Your task to perform on an android device: Empty the shopping cart on target.com. Add "jbl flip 4" to the cart on target.com Image 0: 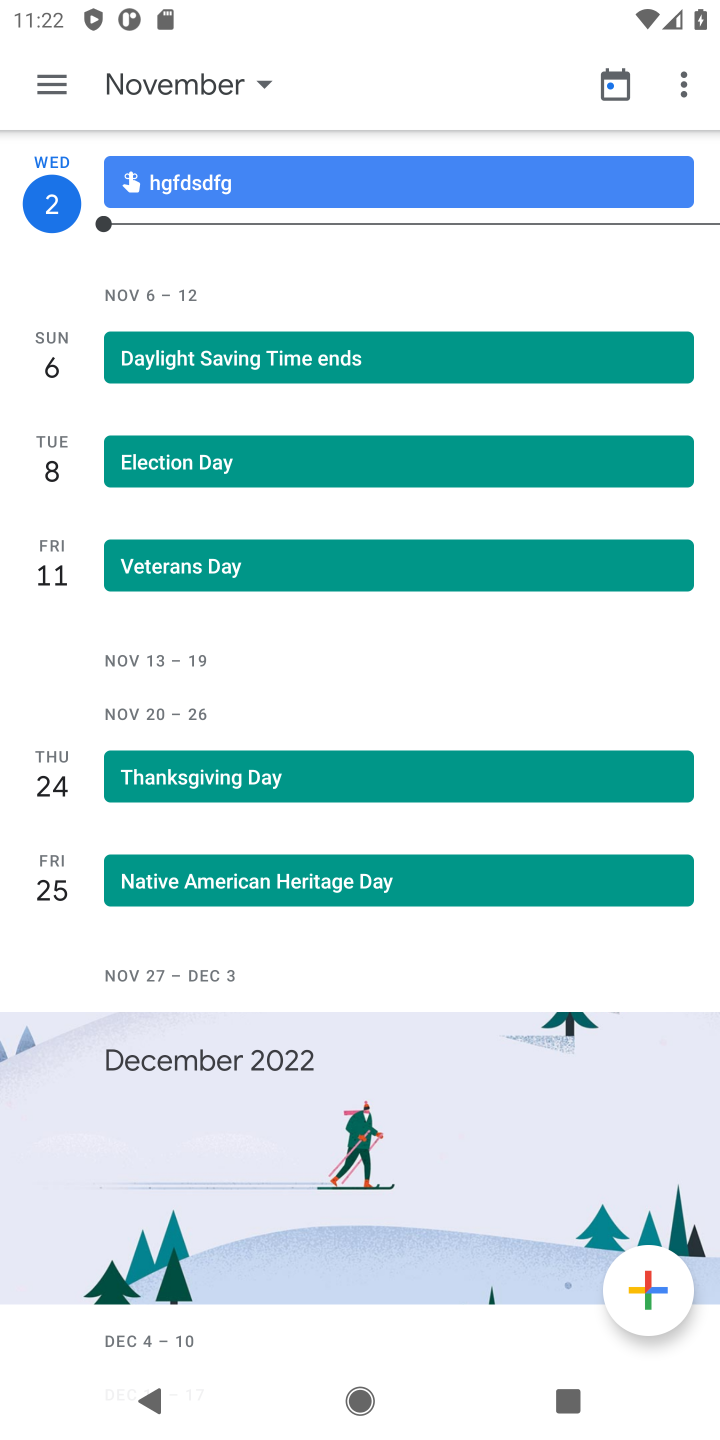
Step 0: press home button
Your task to perform on an android device: Empty the shopping cart on target.com. Add "jbl flip 4" to the cart on target.com Image 1: 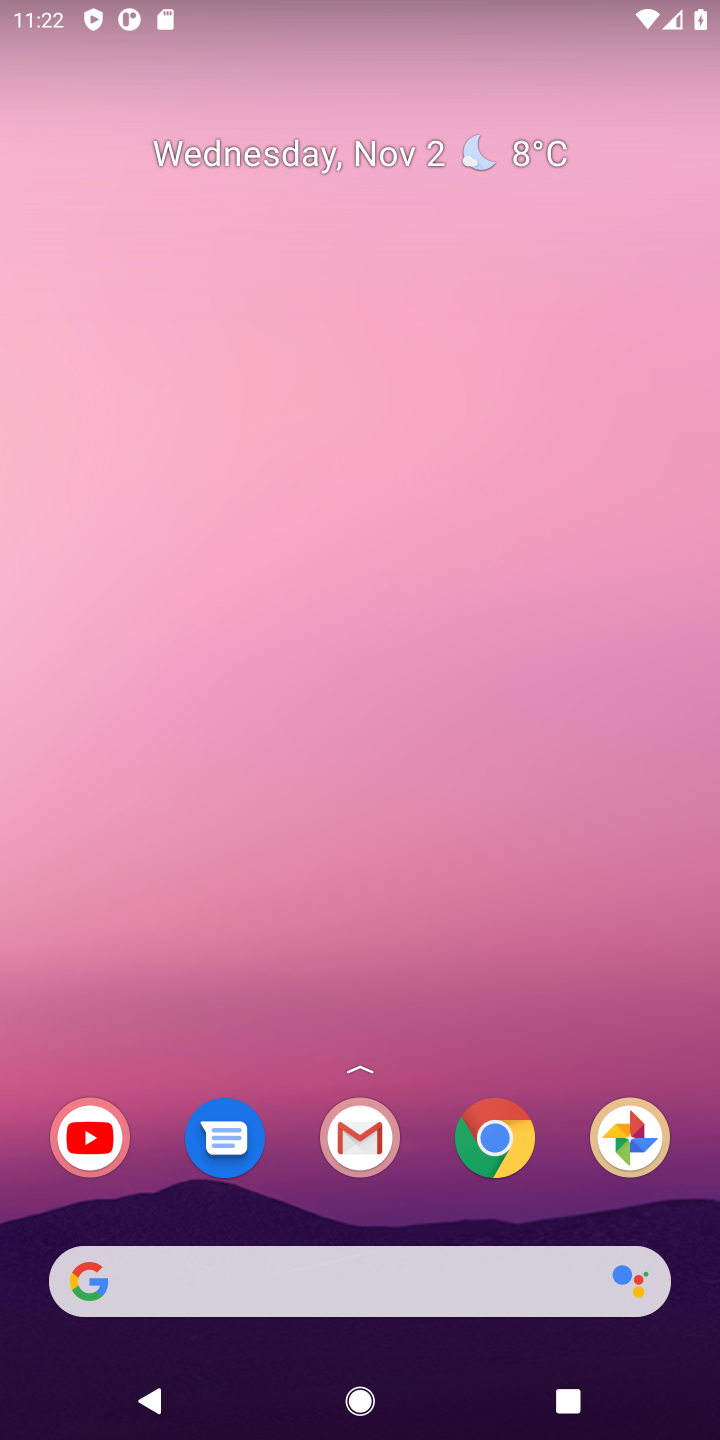
Step 1: click (505, 1130)
Your task to perform on an android device: Empty the shopping cart on target.com. Add "jbl flip 4" to the cart on target.com Image 2: 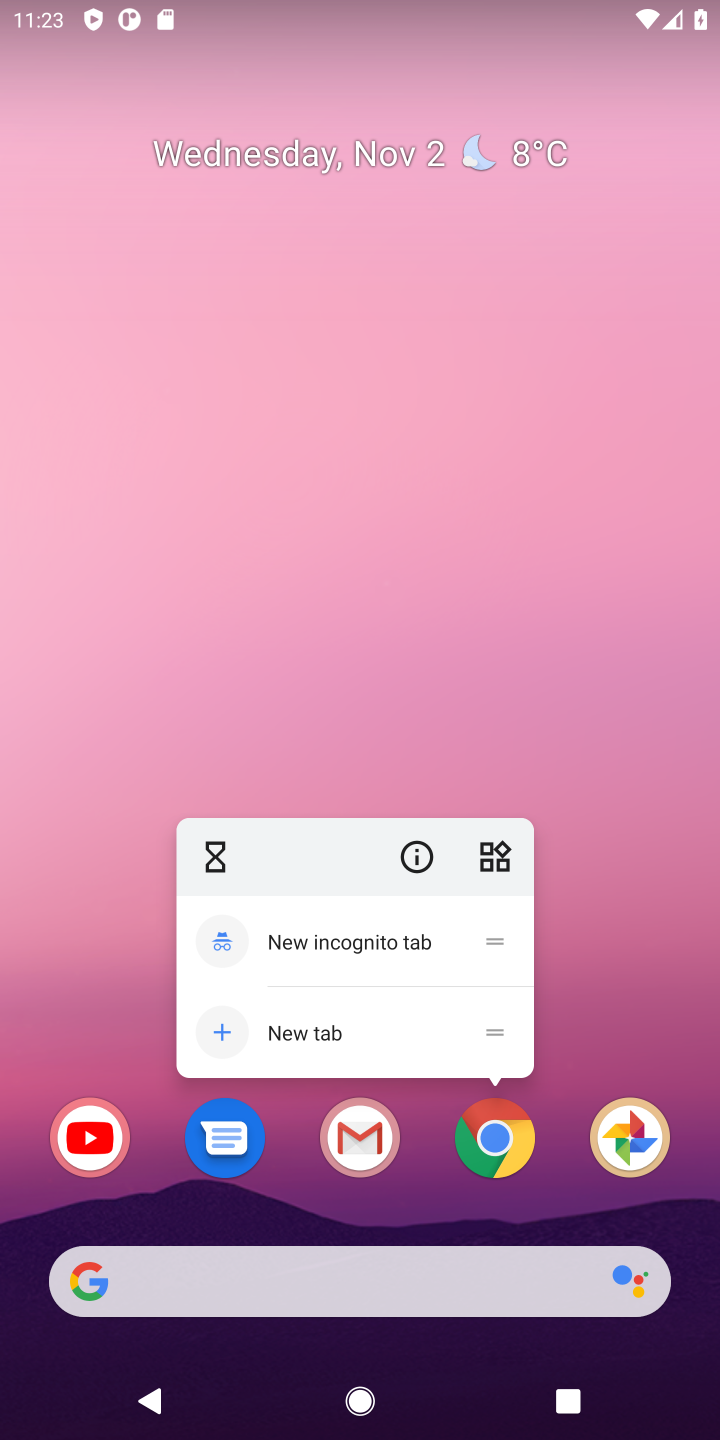
Step 2: click (493, 1114)
Your task to perform on an android device: Empty the shopping cart on target.com. Add "jbl flip 4" to the cart on target.com Image 3: 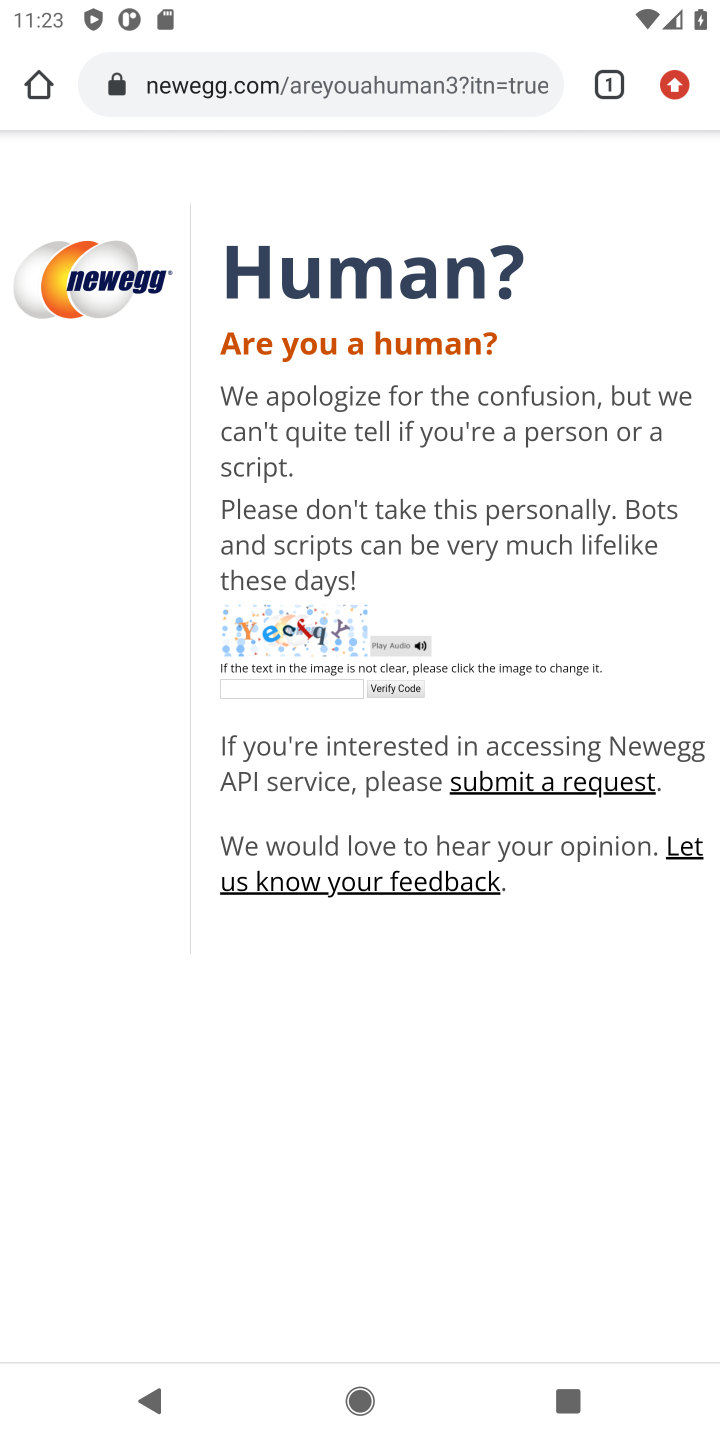
Step 3: click (281, 84)
Your task to perform on an android device: Empty the shopping cart on target.com. Add "jbl flip 4" to the cart on target.com Image 4: 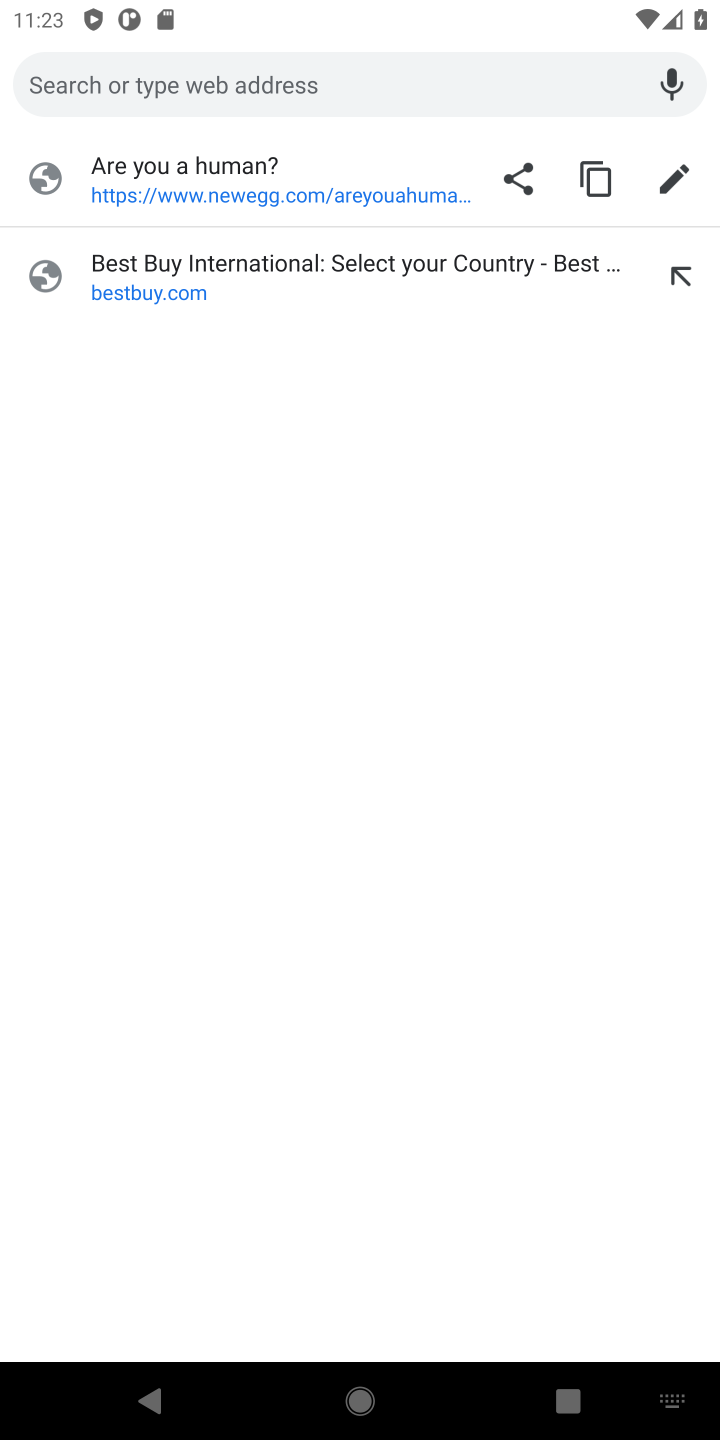
Step 4: type "target"
Your task to perform on an android device: Empty the shopping cart on target.com. Add "jbl flip 4" to the cart on target.com Image 5: 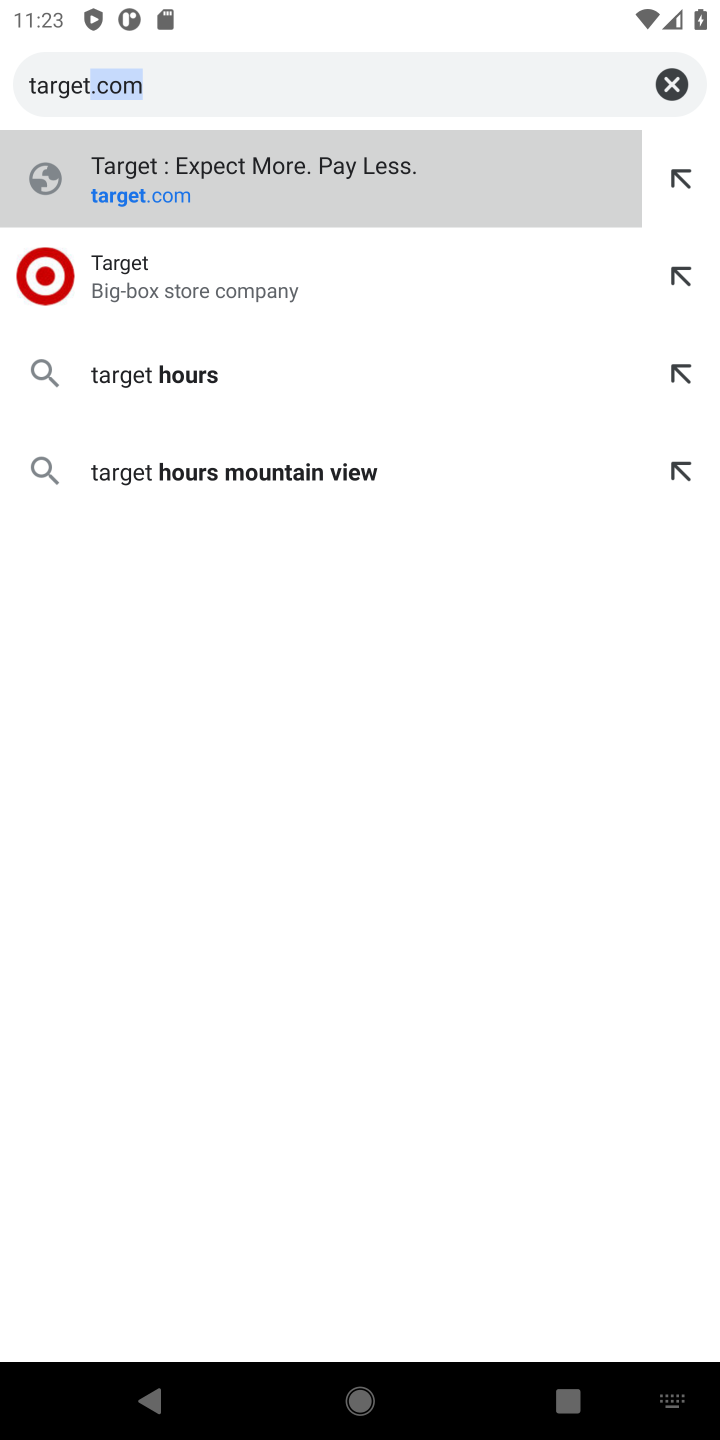
Step 5: type ""
Your task to perform on an android device: Empty the shopping cart on target.com. Add "jbl flip 4" to the cart on target.com Image 6: 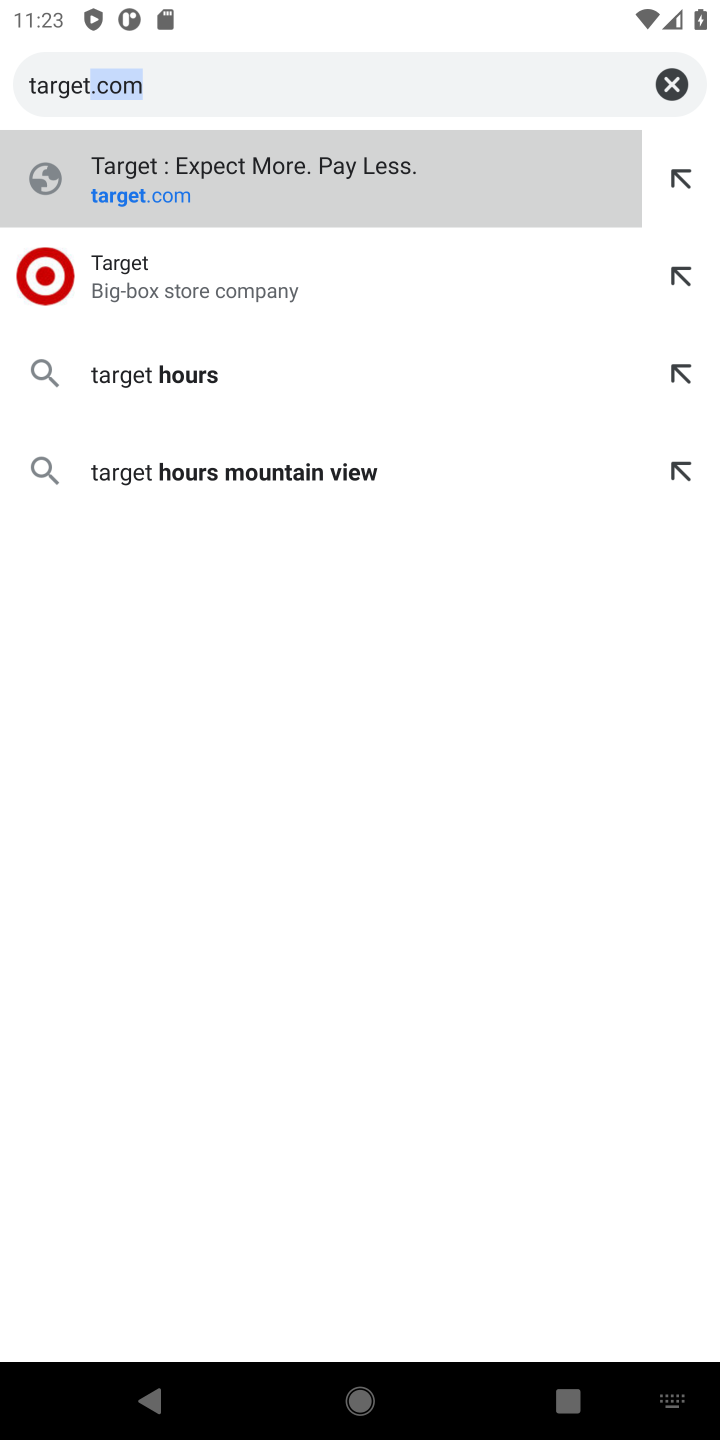
Step 6: click (210, 283)
Your task to perform on an android device: Empty the shopping cart on target.com. Add "jbl flip 4" to the cart on target.com Image 7: 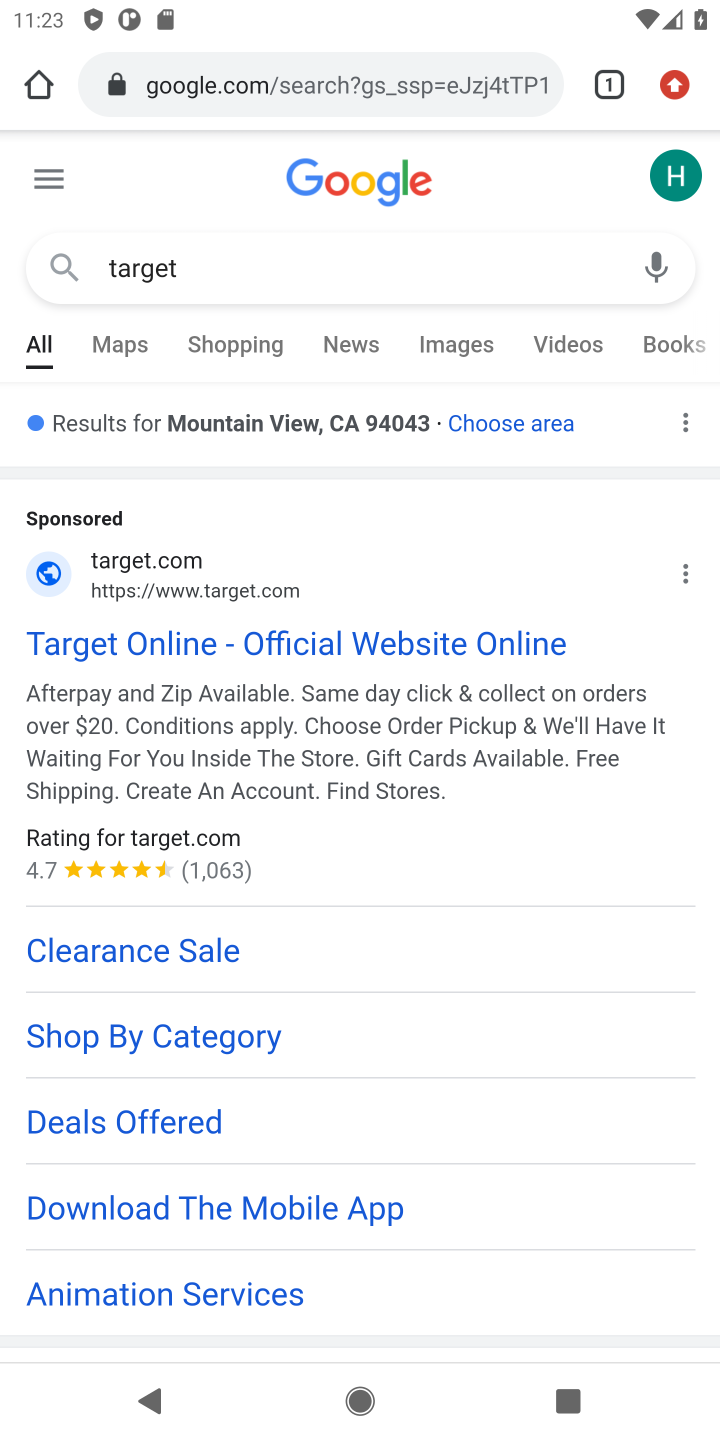
Step 7: click (153, 619)
Your task to perform on an android device: Empty the shopping cart on target.com. Add "jbl flip 4" to the cart on target.com Image 8: 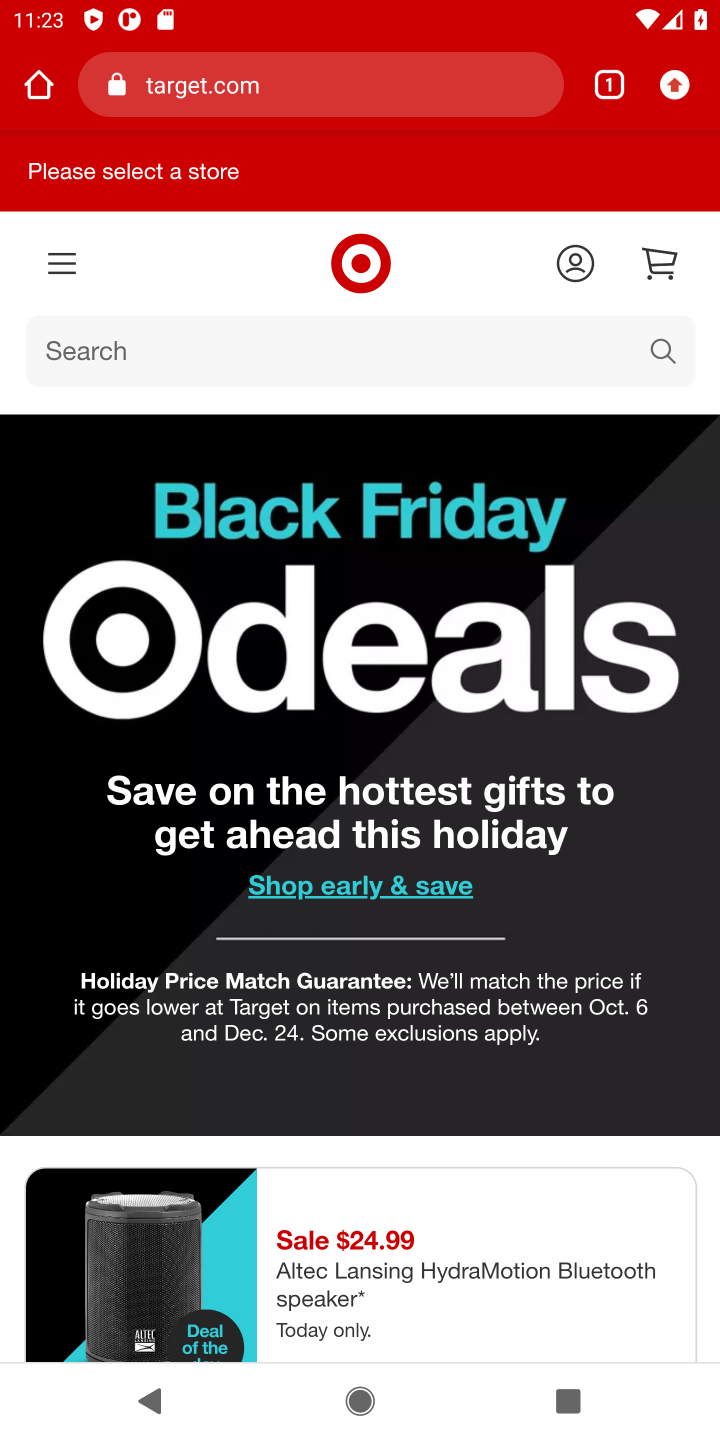
Step 8: click (675, 275)
Your task to perform on an android device: Empty the shopping cart on target.com. Add "jbl flip 4" to the cart on target.com Image 9: 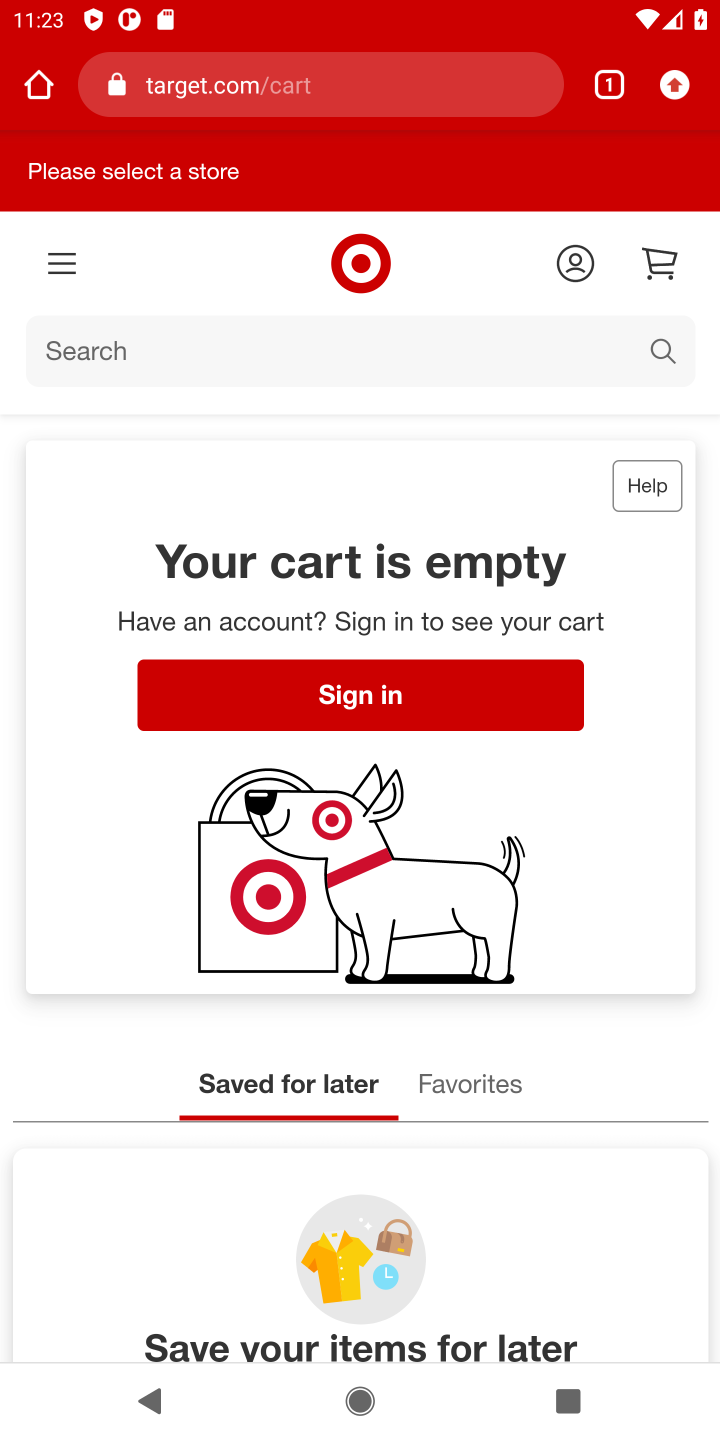
Step 9: click (392, 367)
Your task to perform on an android device: Empty the shopping cart on target.com. Add "jbl flip 4" to the cart on target.com Image 10: 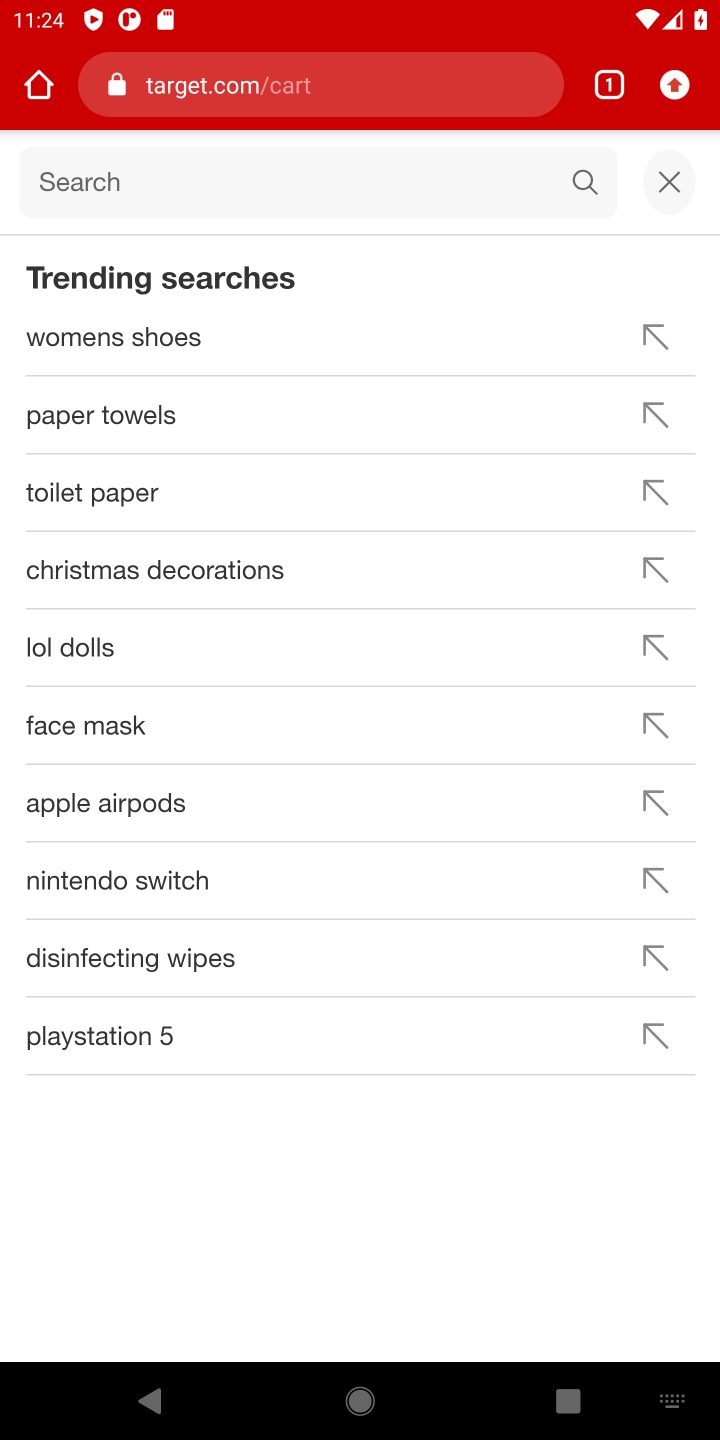
Step 10: type "jbl flip 4"
Your task to perform on an android device: Empty the shopping cart on target.com. Add "jbl flip 4" to the cart on target.com Image 11: 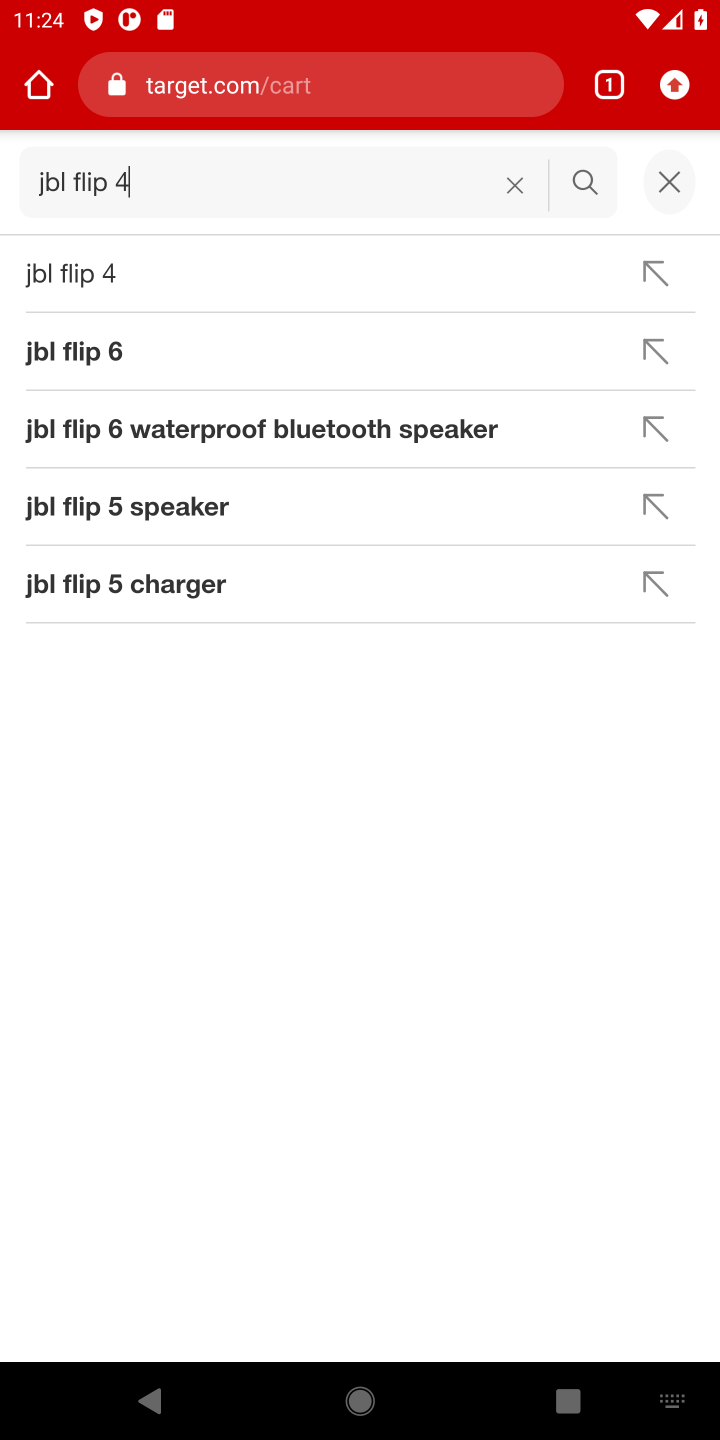
Step 11: click (588, 172)
Your task to perform on an android device: Empty the shopping cart on target.com. Add "jbl flip 4" to the cart on target.com Image 12: 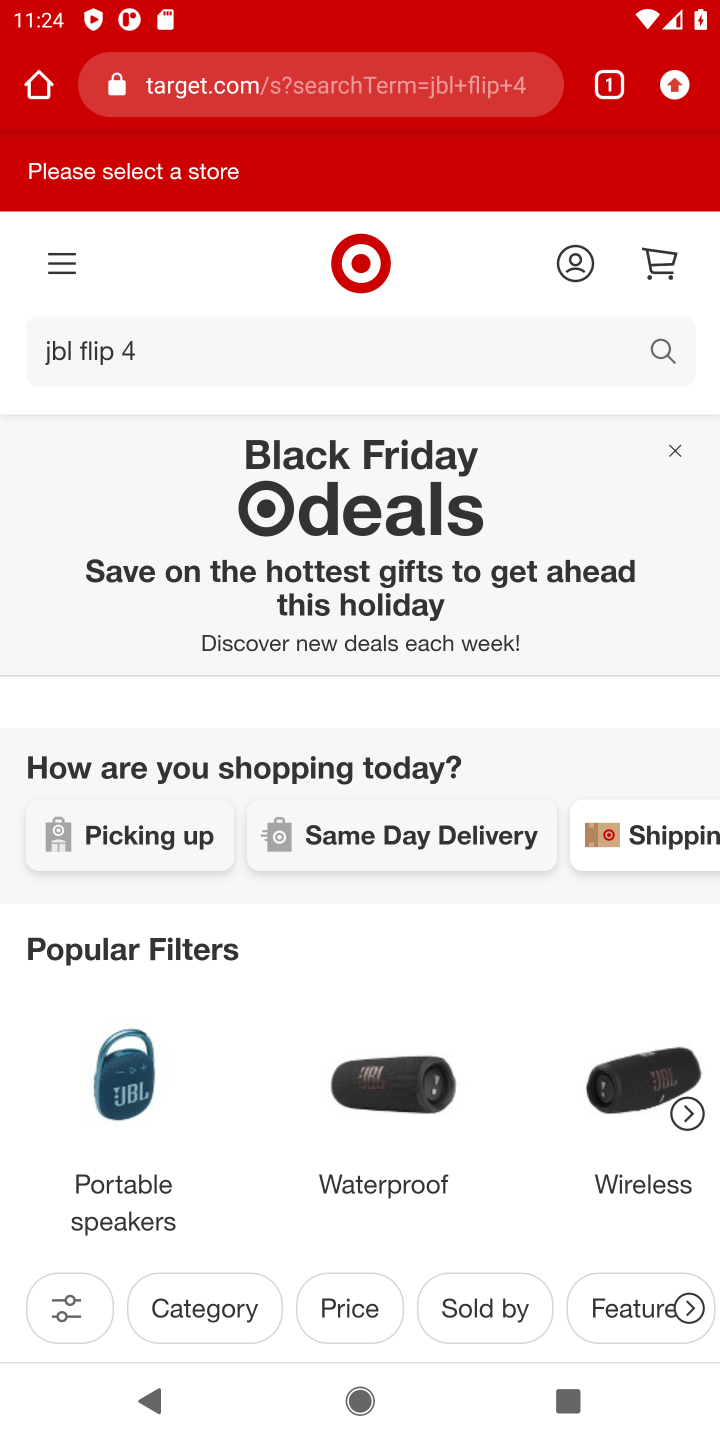
Step 12: task complete